Your task to perform on an android device: Check the news Image 0: 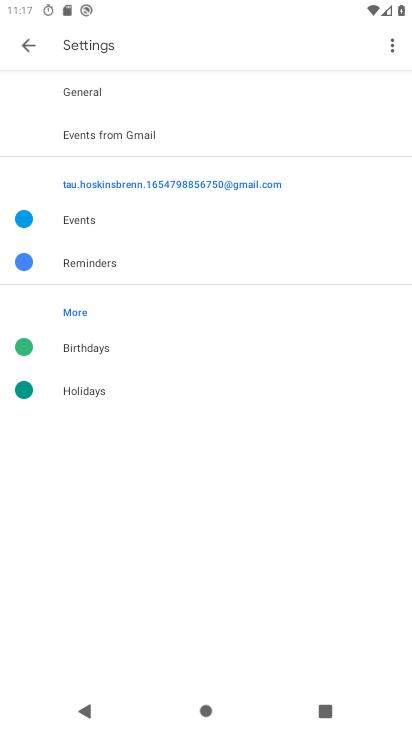
Step 0: press home button
Your task to perform on an android device: Check the news Image 1: 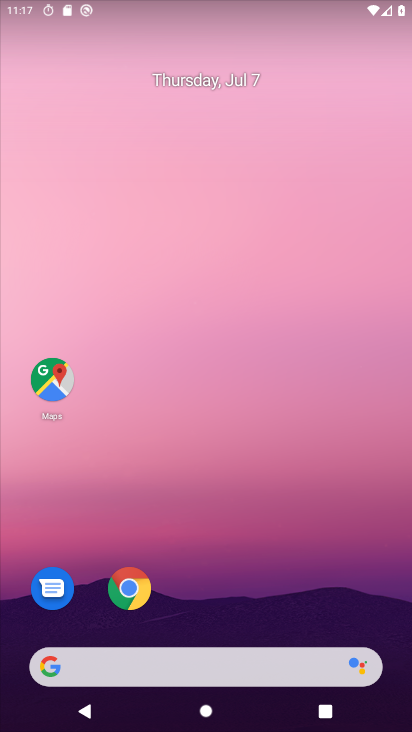
Step 1: click (174, 669)
Your task to perform on an android device: Check the news Image 2: 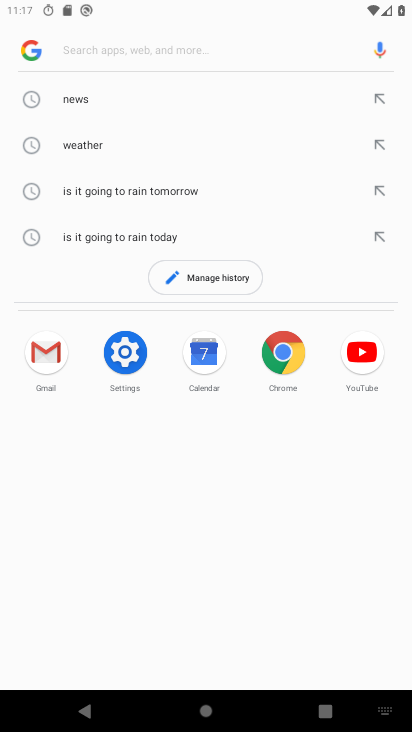
Step 2: click (73, 91)
Your task to perform on an android device: Check the news Image 3: 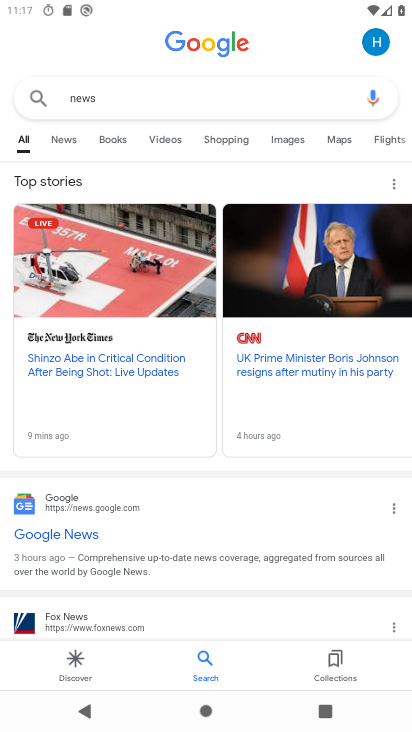
Step 3: task complete